Your task to perform on an android device: Open Wikipedia Image 0: 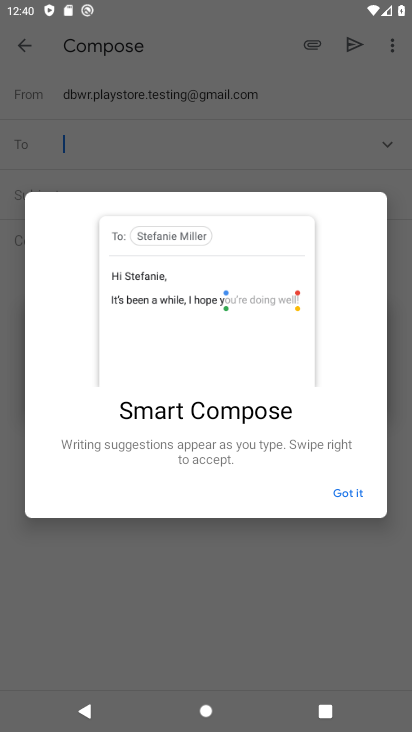
Step 0: press home button
Your task to perform on an android device: Open Wikipedia Image 1: 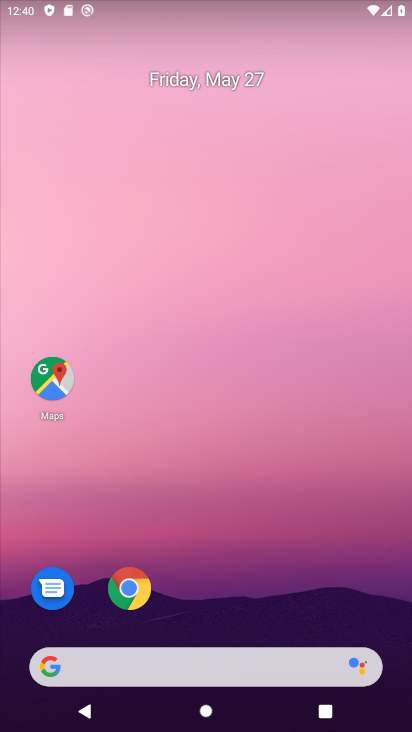
Step 1: click (142, 594)
Your task to perform on an android device: Open Wikipedia Image 2: 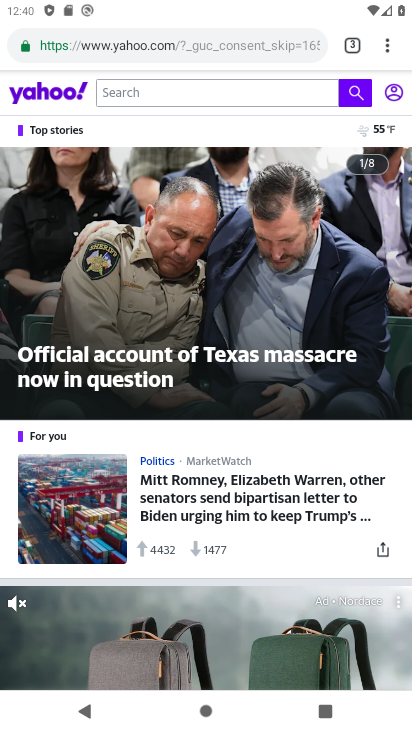
Step 2: click (350, 51)
Your task to perform on an android device: Open Wikipedia Image 3: 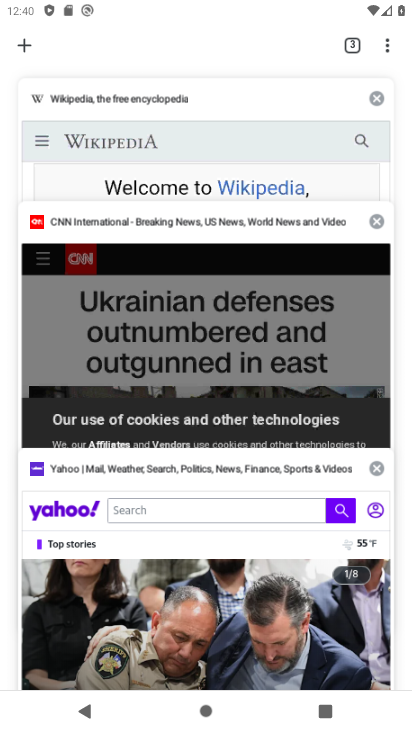
Step 3: click (26, 44)
Your task to perform on an android device: Open Wikipedia Image 4: 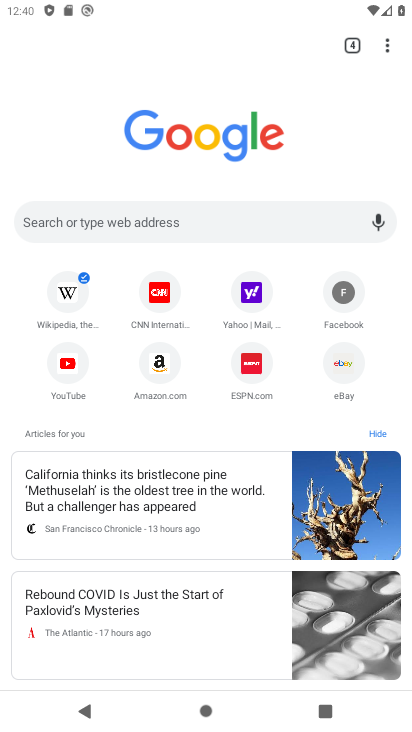
Step 4: click (57, 292)
Your task to perform on an android device: Open Wikipedia Image 5: 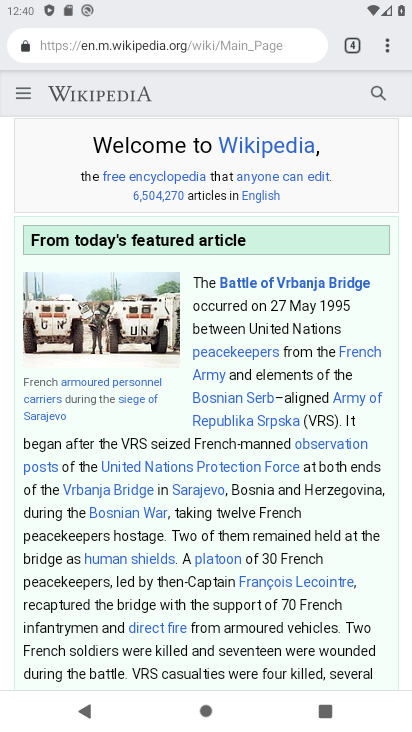
Step 5: task complete